Your task to perform on an android device: check android version Image 0: 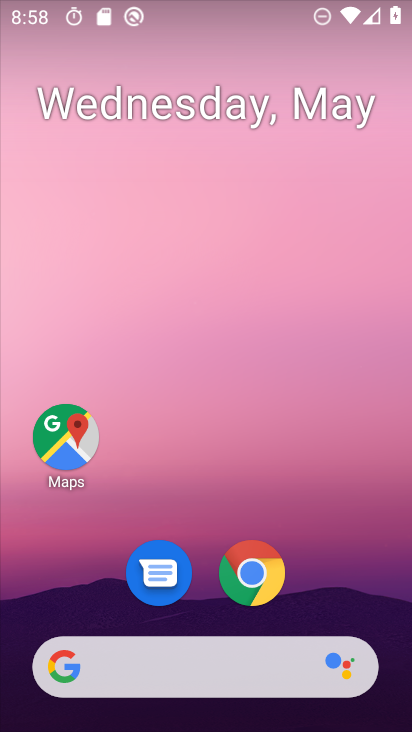
Step 0: drag from (382, 661) to (372, 152)
Your task to perform on an android device: check android version Image 1: 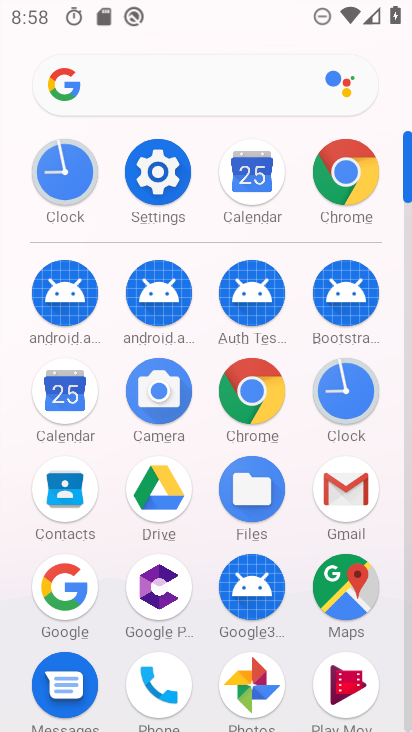
Step 1: click (162, 169)
Your task to perform on an android device: check android version Image 2: 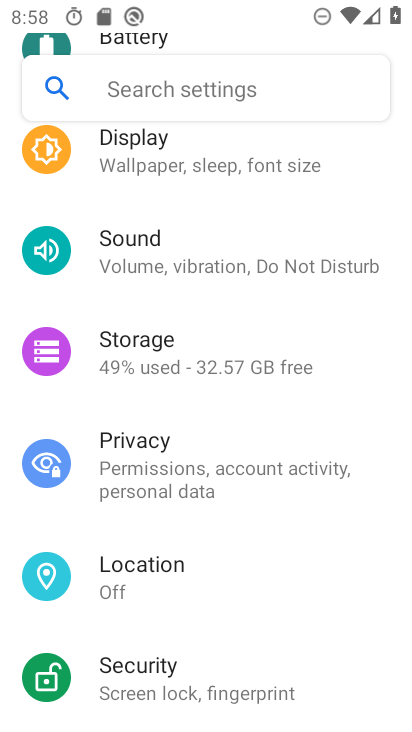
Step 2: drag from (314, 701) to (318, 69)
Your task to perform on an android device: check android version Image 3: 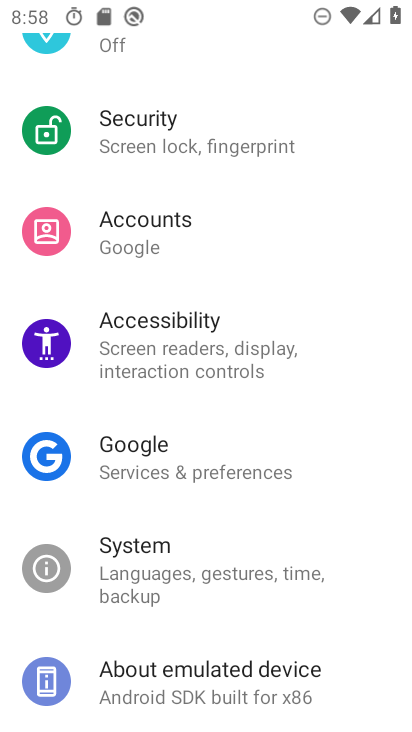
Step 3: drag from (252, 628) to (263, 375)
Your task to perform on an android device: check android version Image 4: 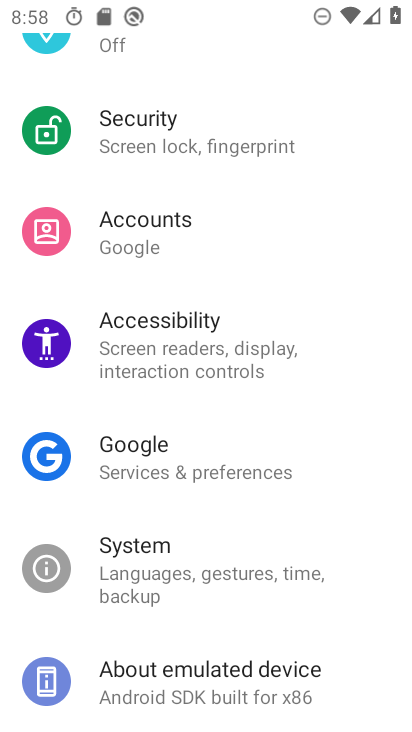
Step 4: click (174, 667)
Your task to perform on an android device: check android version Image 5: 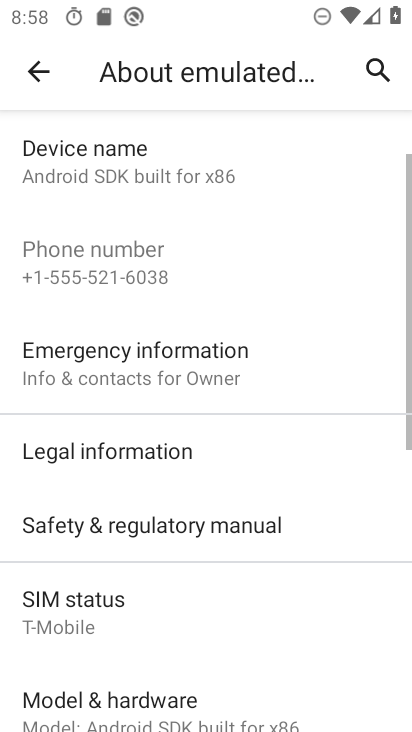
Step 5: drag from (293, 681) to (265, 234)
Your task to perform on an android device: check android version Image 6: 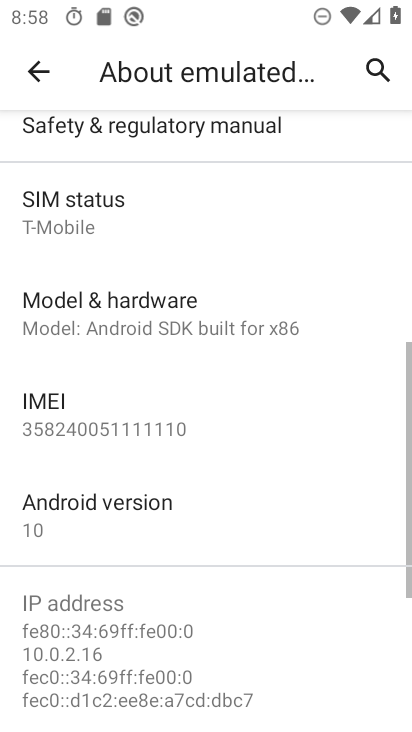
Step 6: drag from (277, 573) to (281, 308)
Your task to perform on an android device: check android version Image 7: 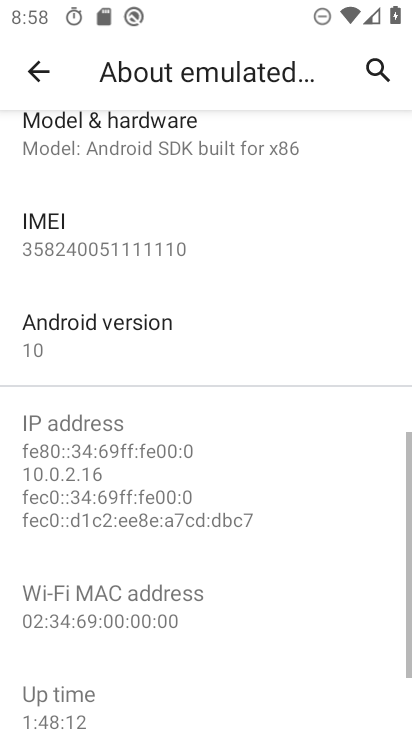
Step 7: click (50, 336)
Your task to perform on an android device: check android version Image 8: 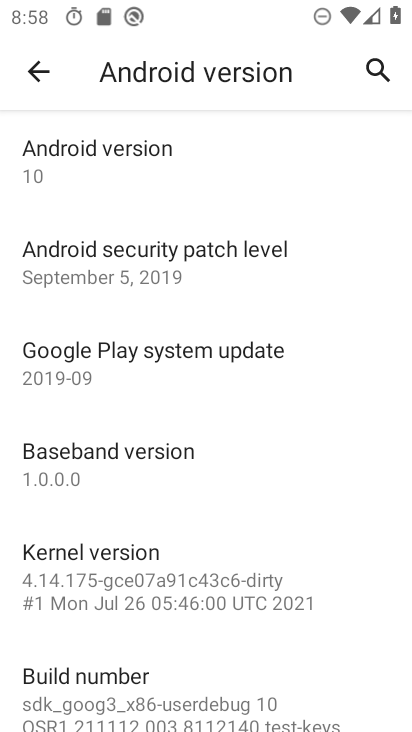
Step 8: click (88, 168)
Your task to perform on an android device: check android version Image 9: 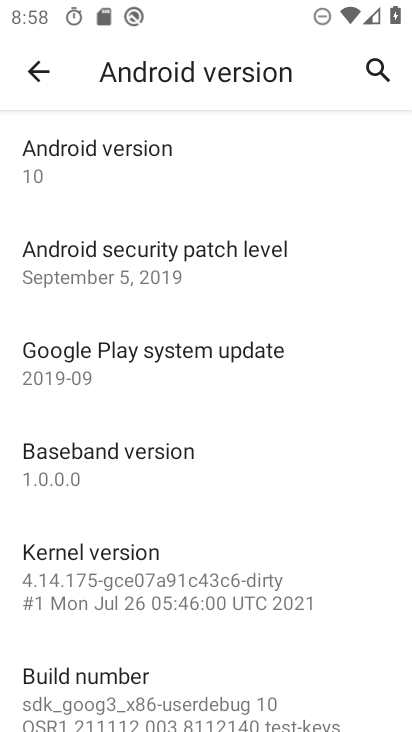
Step 9: task complete